Your task to perform on an android device: When is my next appointment? Image 0: 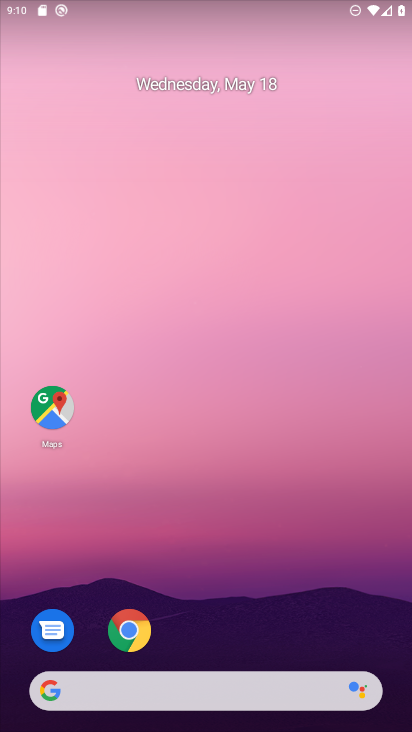
Step 0: drag from (212, 675) to (202, 121)
Your task to perform on an android device: When is my next appointment? Image 1: 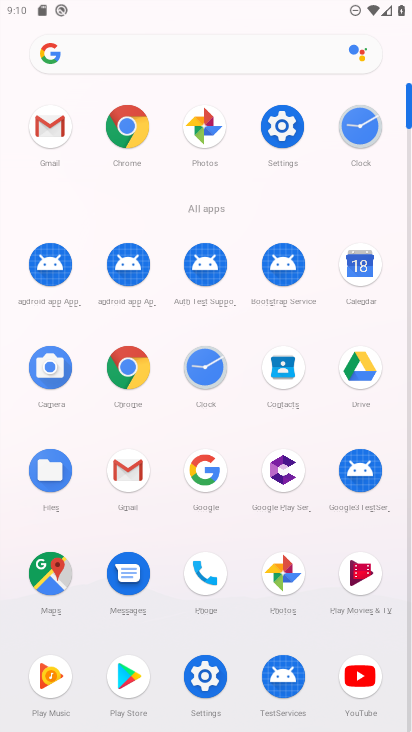
Step 1: click (365, 271)
Your task to perform on an android device: When is my next appointment? Image 2: 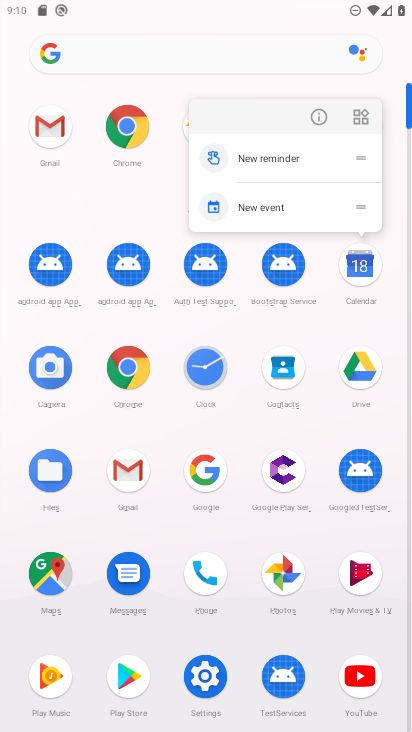
Step 2: click (361, 277)
Your task to perform on an android device: When is my next appointment? Image 3: 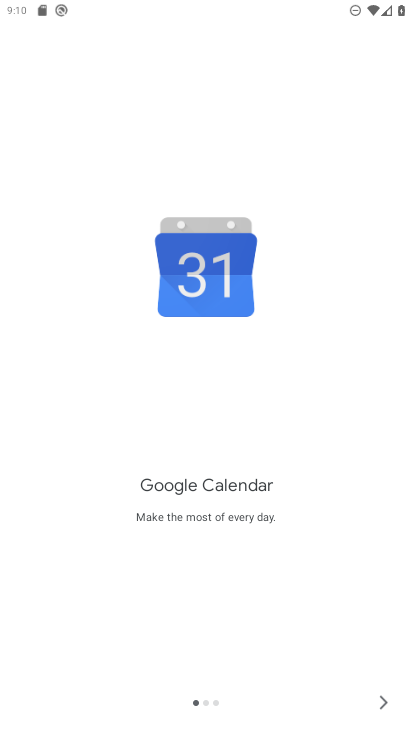
Step 3: click (389, 702)
Your task to perform on an android device: When is my next appointment? Image 4: 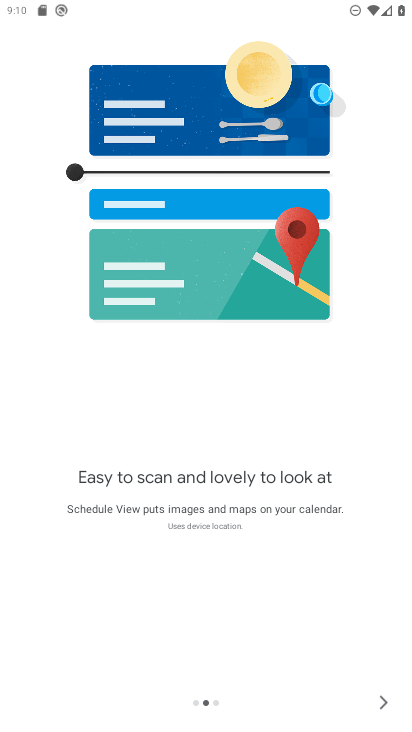
Step 4: click (389, 702)
Your task to perform on an android device: When is my next appointment? Image 5: 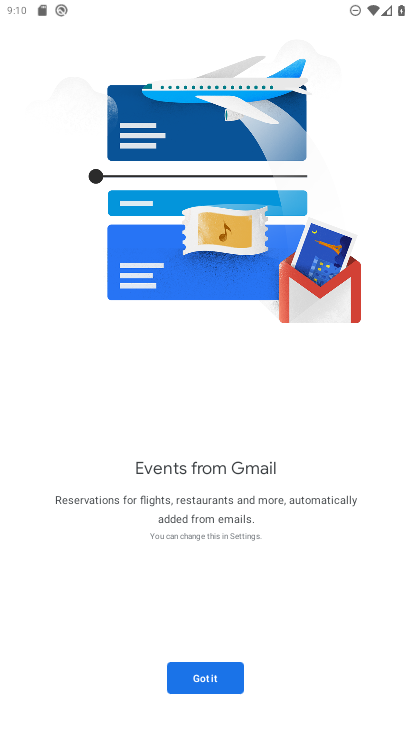
Step 5: click (235, 682)
Your task to perform on an android device: When is my next appointment? Image 6: 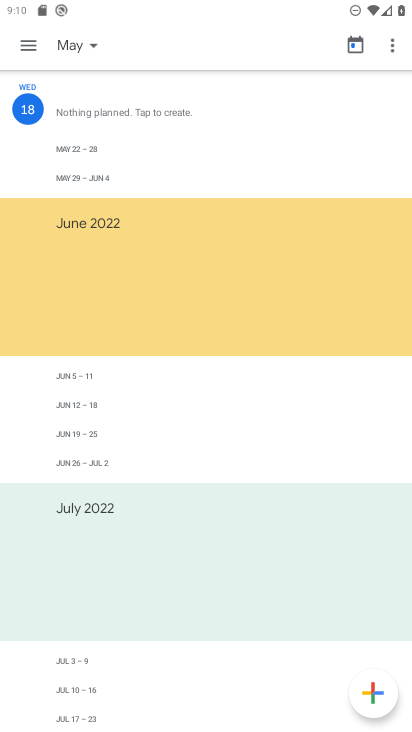
Step 6: task complete